Your task to perform on an android device: change the clock display to analog Image 0: 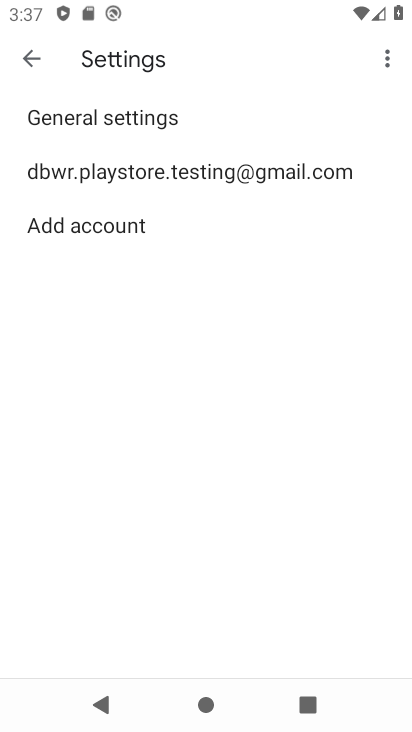
Step 0: press home button
Your task to perform on an android device: change the clock display to analog Image 1: 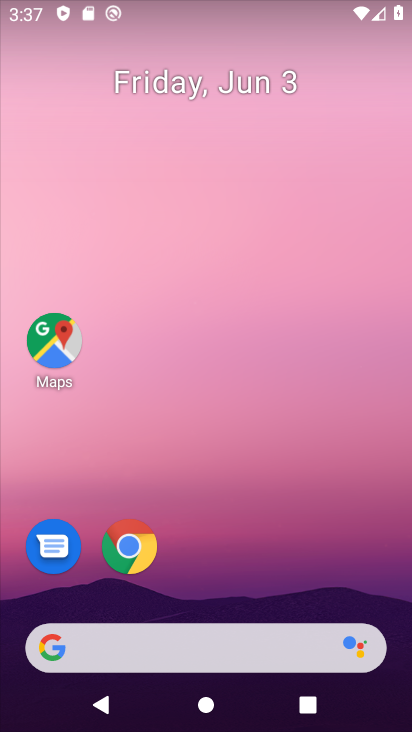
Step 1: drag from (246, 565) to (328, 0)
Your task to perform on an android device: change the clock display to analog Image 2: 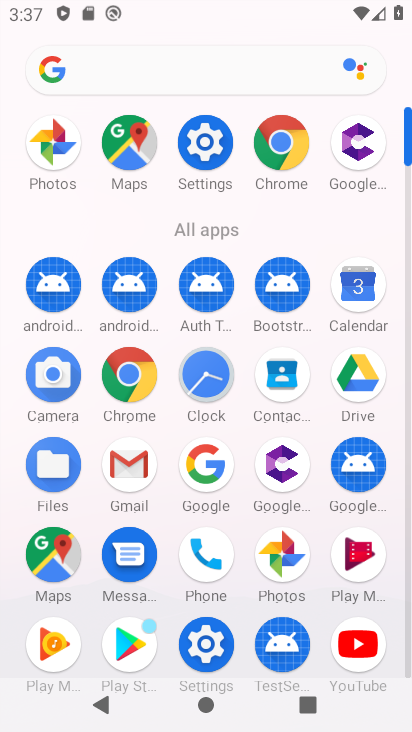
Step 2: click (207, 372)
Your task to perform on an android device: change the clock display to analog Image 3: 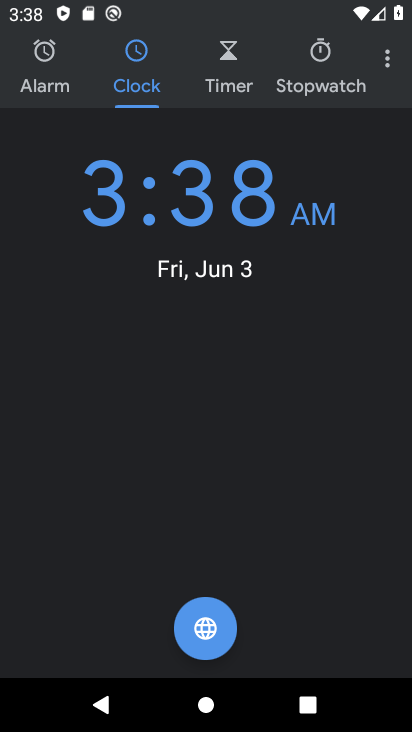
Step 3: click (388, 61)
Your task to perform on an android device: change the clock display to analog Image 4: 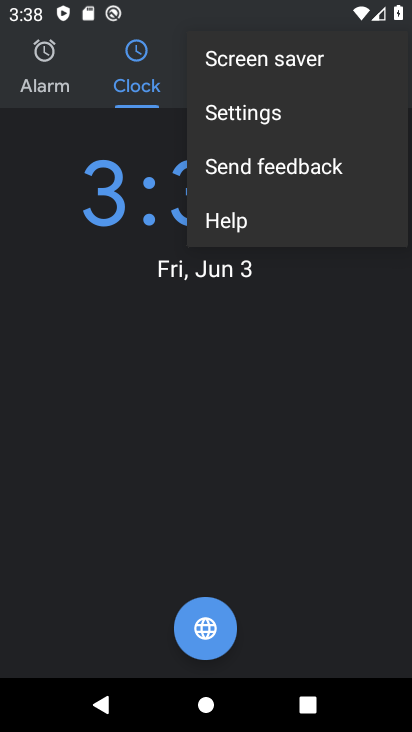
Step 4: click (287, 109)
Your task to perform on an android device: change the clock display to analog Image 5: 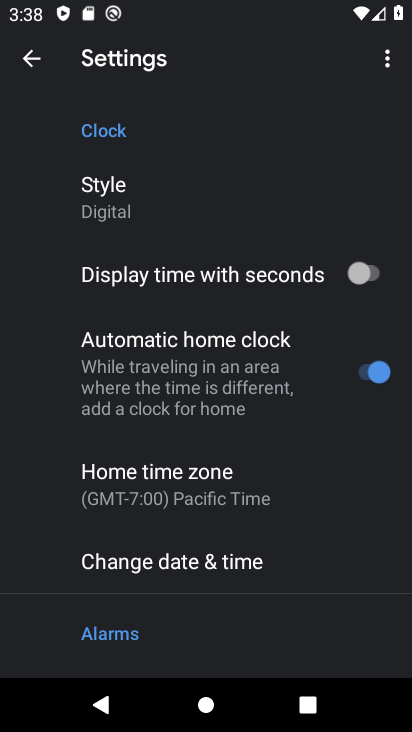
Step 5: click (165, 203)
Your task to perform on an android device: change the clock display to analog Image 6: 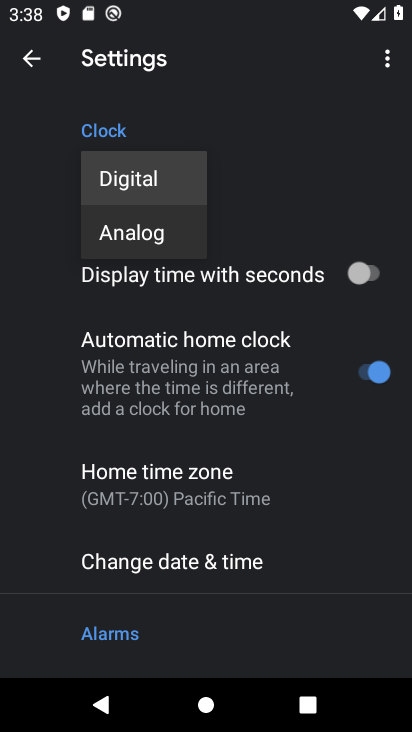
Step 6: click (162, 232)
Your task to perform on an android device: change the clock display to analog Image 7: 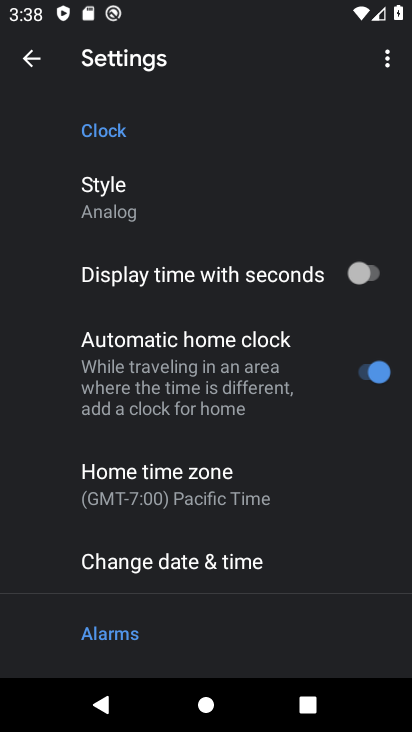
Step 7: click (25, 60)
Your task to perform on an android device: change the clock display to analog Image 8: 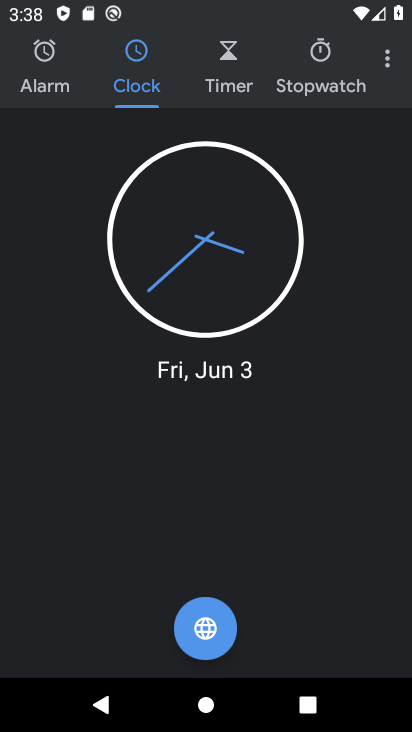
Step 8: task complete